Your task to perform on an android device: snooze an email in the gmail app Image 0: 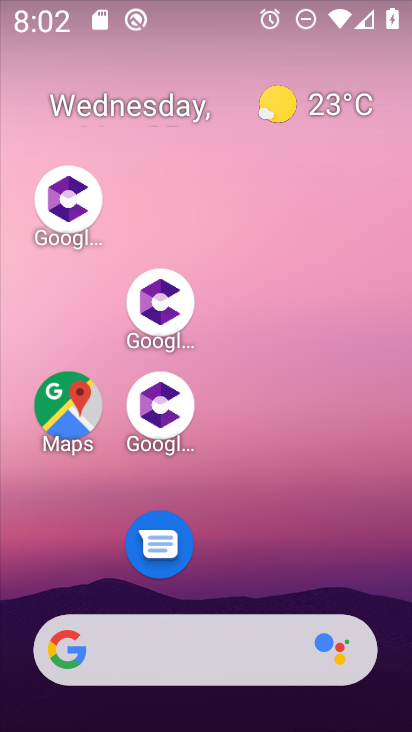
Step 0: drag from (308, 502) to (259, 73)
Your task to perform on an android device: snooze an email in the gmail app Image 1: 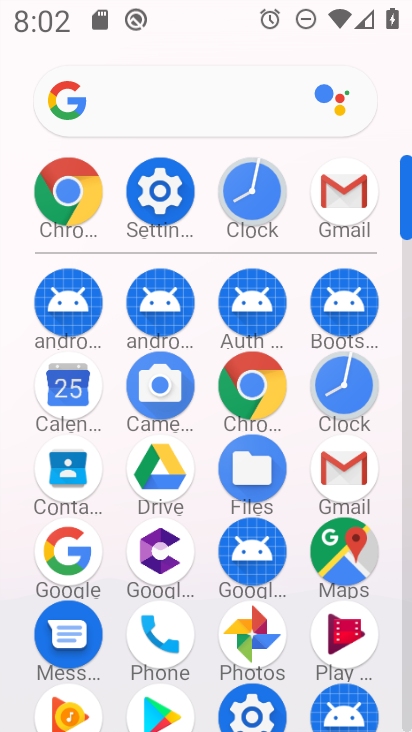
Step 1: click (336, 476)
Your task to perform on an android device: snooze an email in the gmail app Image 2: 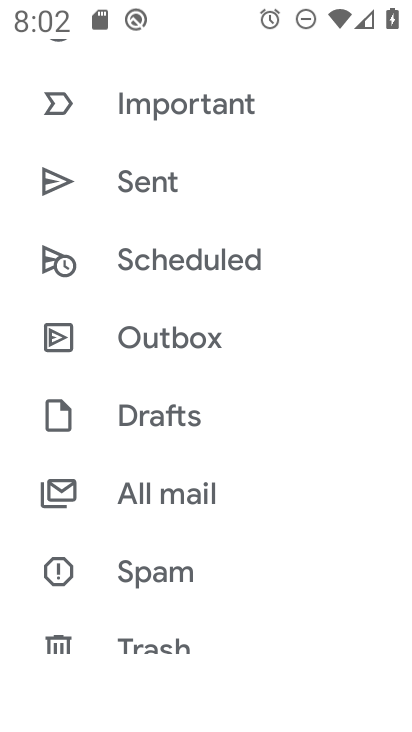
Step 2: drag from (266, 494) to (232, 193)
Your task to perform on an android device: snooze an email in the gmail app Image 3: 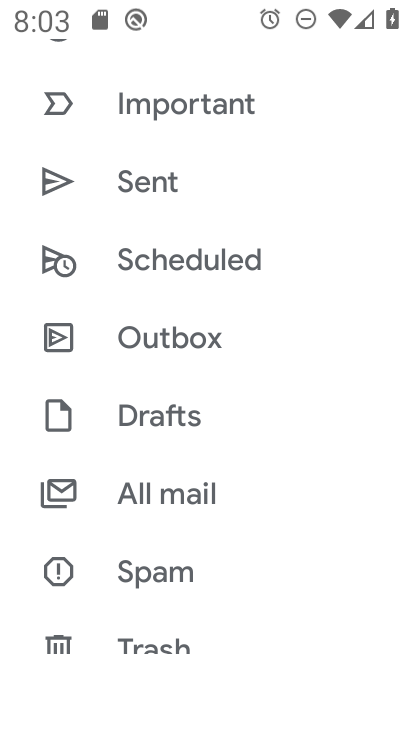
Step 3: drag from (258, 209) to (253, 401)
Your task to perform on an android device: snooze an email in the gmail app Image 4: 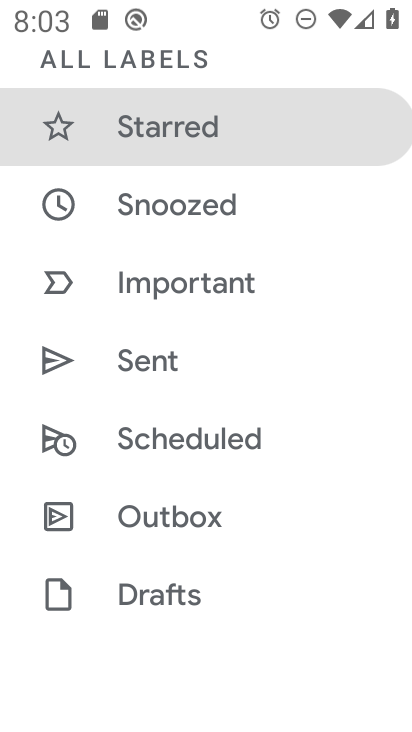
Step 4: drag from (241, 550) to (220, 292)
Your task to perform on an android device: snooze an email in the gmail app Image 5: 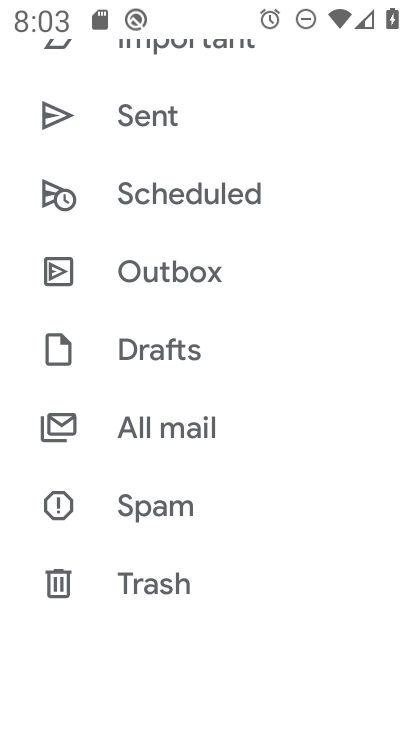
Step 5: click (176, 417)
Your task to perform on an android device: snooze an email in the gmail app Image 6: 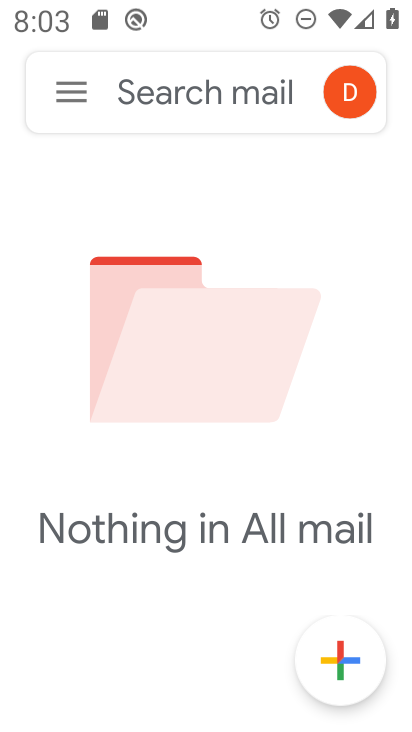
Step 6: task complete